Your task to perform on an android device: Go to settings Image 0: 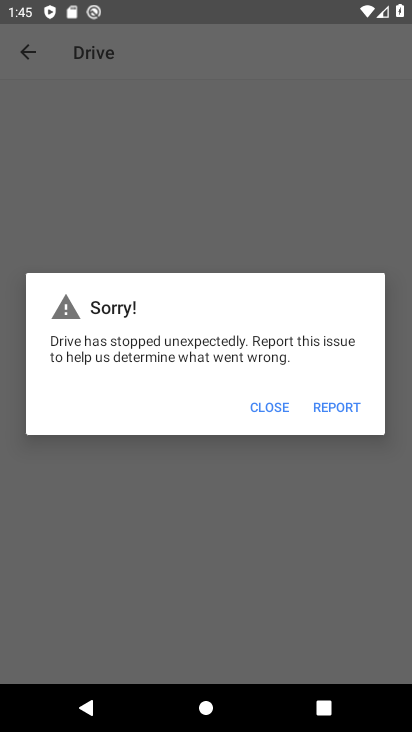
Step 0: press home button
Your task to perform on an android device: Go to settings Image 1: 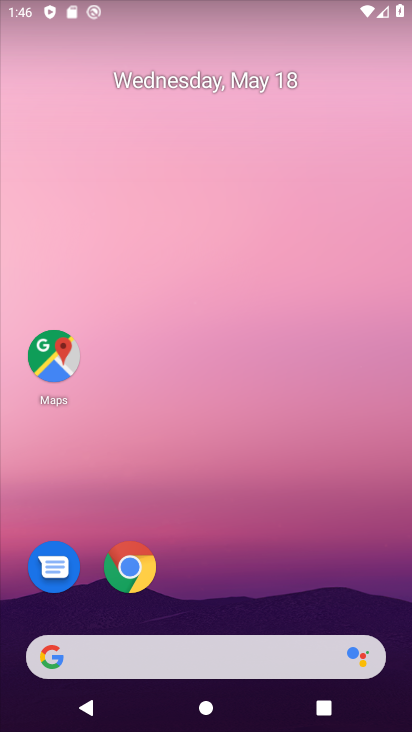
Step 1: drag from (215, 424) to (230, 222)
Your task to perform on an android device: Go to settings Image 2: 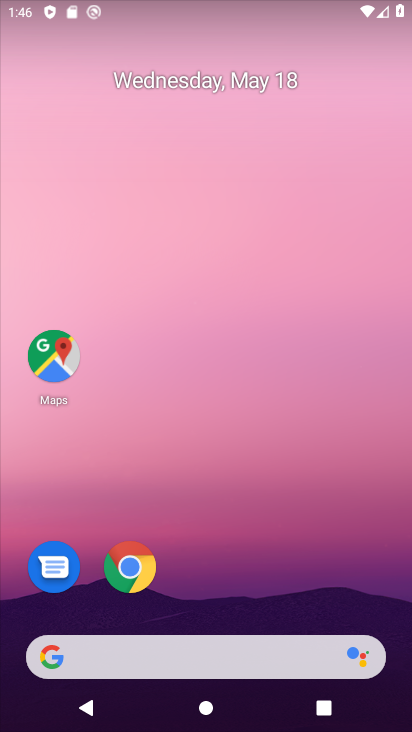
Step 2: drag from (261, 605) to (218, 170)
Your task to perform on an android device: Go to settings Image 3: 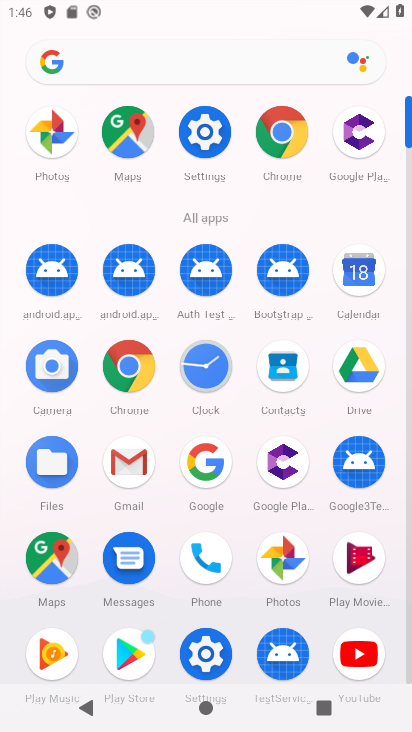
Step 3: click (217, 125)
Your task to perform on an android device: Go to settings Image 4: 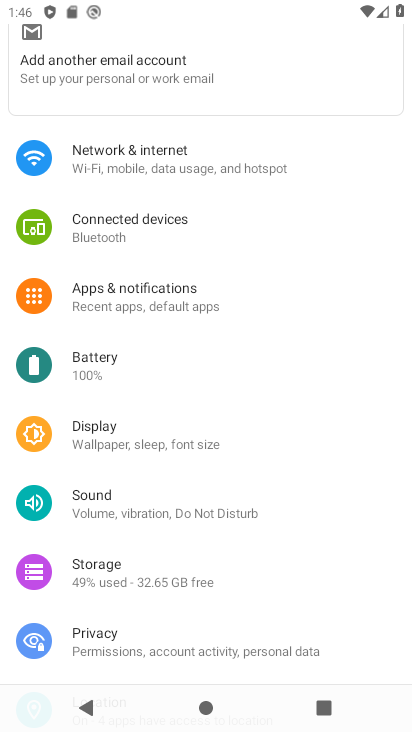
Step 4: task complete